Your task to perform on an android device: turn on translation in the chrome app Image 0: 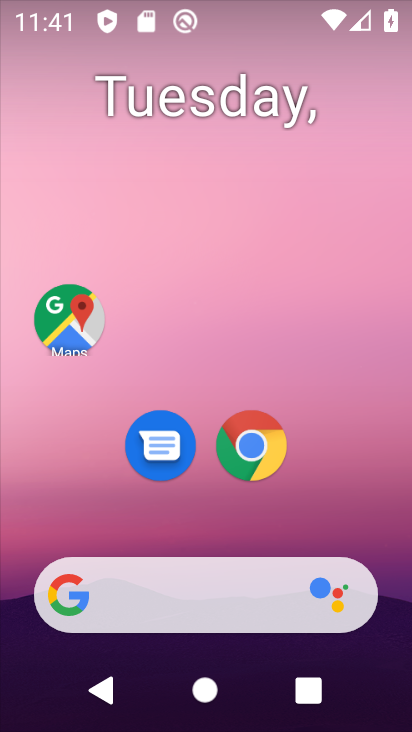
Step 0: drag from (313, 201) to (309, 19)
Your task to perform on an android device: turn on translation in the chrome app Image 1: 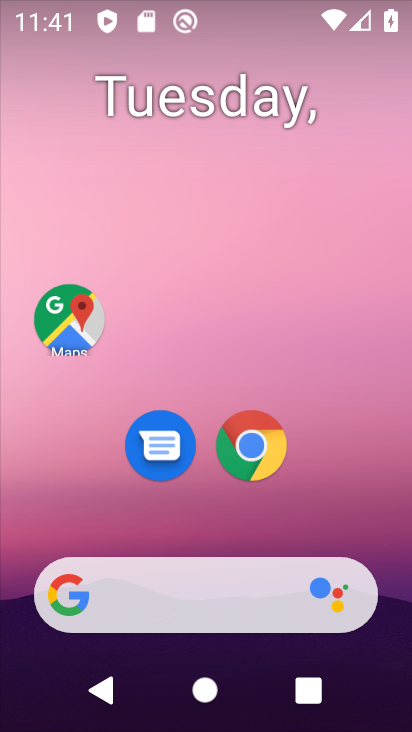
Step 1: drag from (329, 521) to (328, 73)
Your task to perform on an android device: turn on translation in the chrome app Image 2: 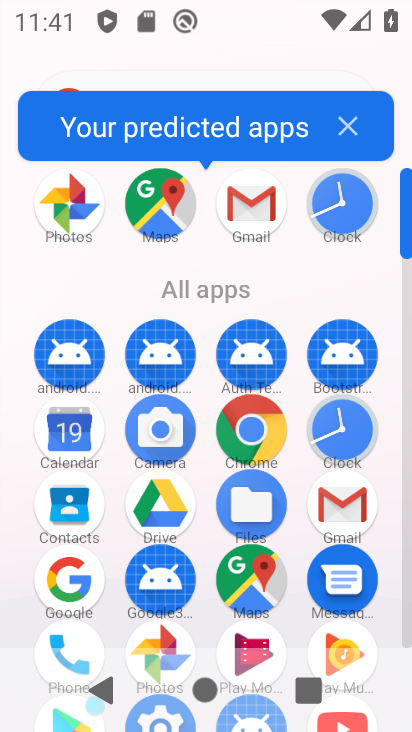
Step 2: click (242, 423)
Your task to perform on an android device: turn on translation in the chrome app Image 3: 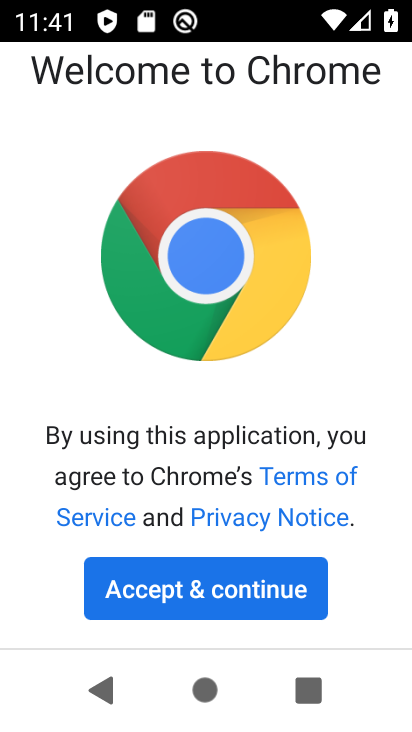
Step 3: click (244, 606)
Your task to perform on an android device: turn on translation in the chrome app Image 4: 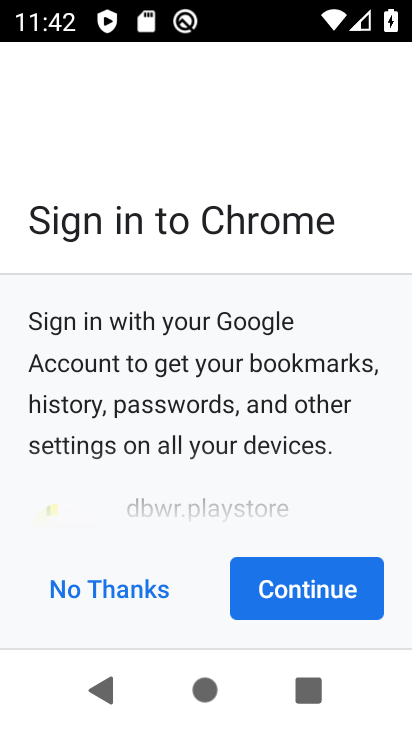
Step 4: click (274, 587)
Your task to perform on an android device: turn on translation in the chrome app Image 5: 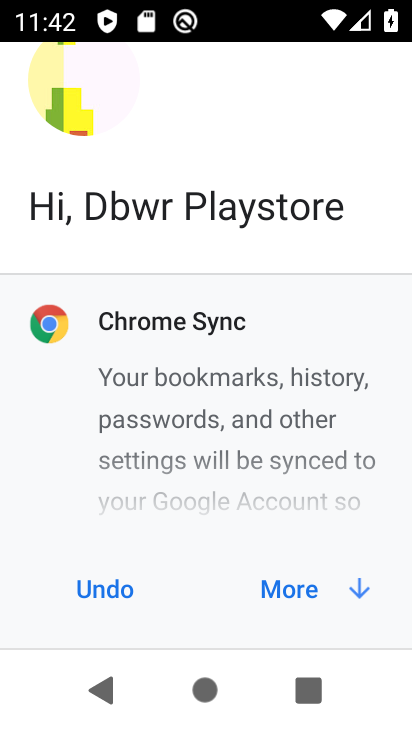
Step 5: click (312, 600)
Your task to perform on an android device: turn on translation in the chrome app Image 6: 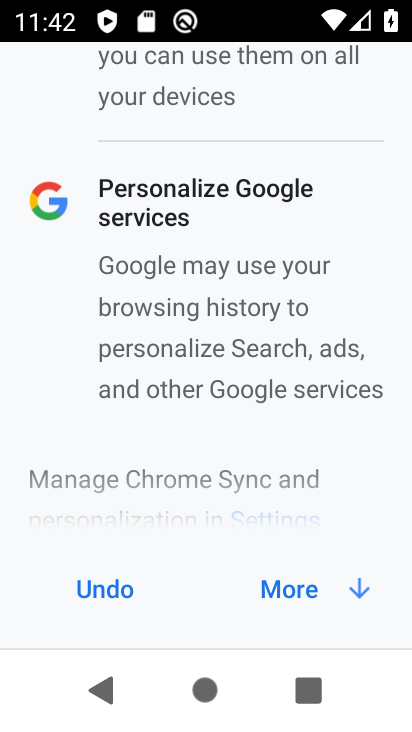
Step 6: click (312, 600)
Your task to perform on an android device: turn on translation in the chrome app Image 7: 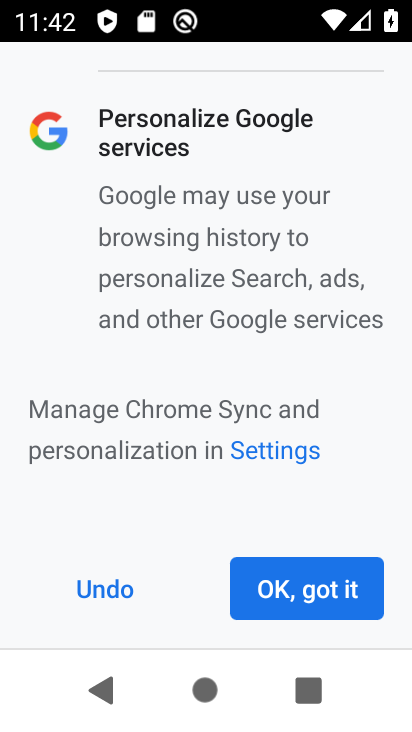
Step 7: click (312, 600)
Your task to perform on an android device: turn on translation in the chrome app Image 8: 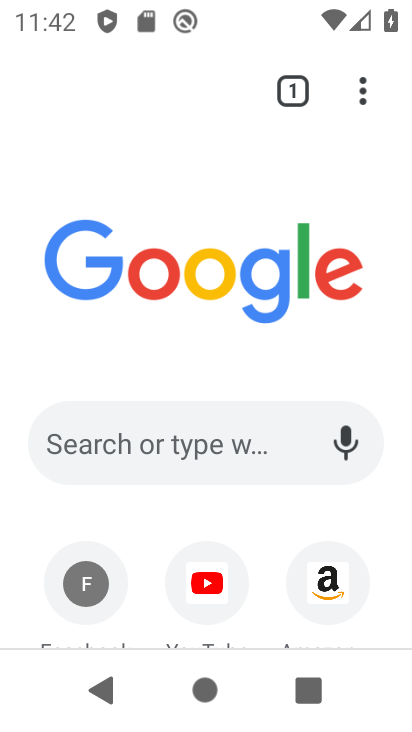
Step 8: click (370, 80)
Your task to perform on an android device: turn on translation in the chrome app Image 9: 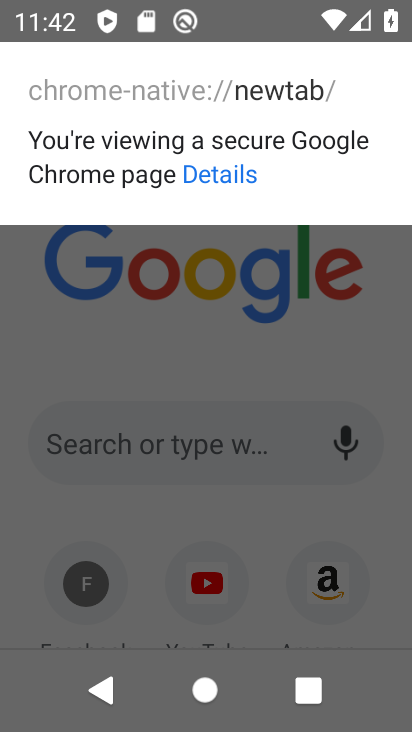
Step 9: click (324, 313)
Your task to perform on an android device: turn on translation in the chrome app Image 10: 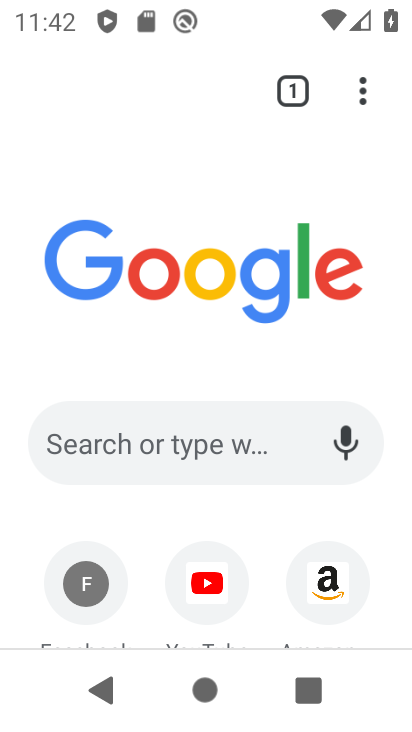
Step 10: click (361, 82)
Your task to perform on an android device: turn on translation in the chrome app Image 11: 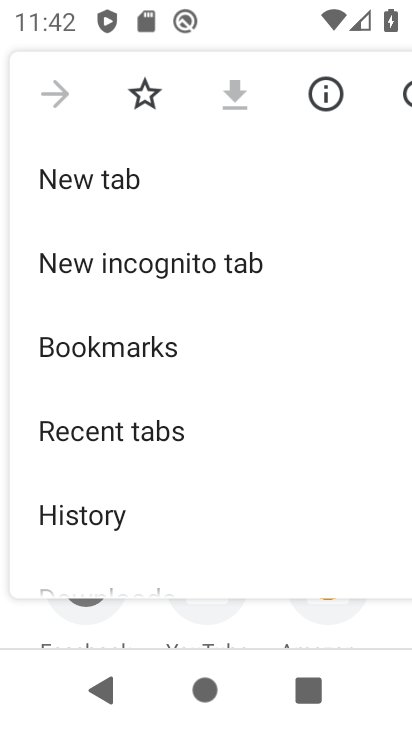
Step 11: drag from (156, 518) to (210, 0)
Your task to perform on an android device: turn on translation in the chrome app Image 12: 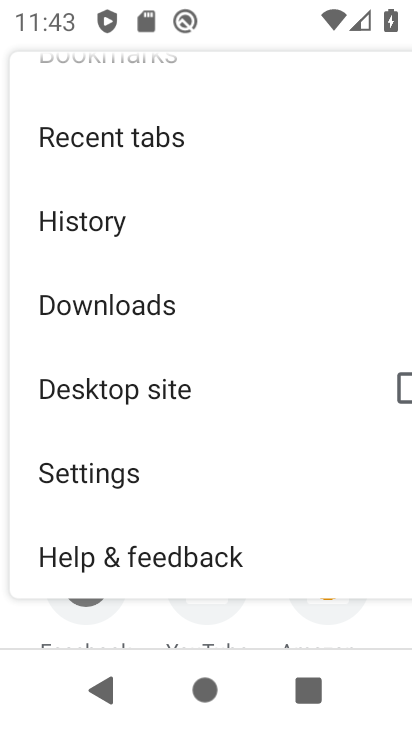
Step 12: click (121, 475)
Your task to perform on an android device: turn on translation in the chrome app Image 13: 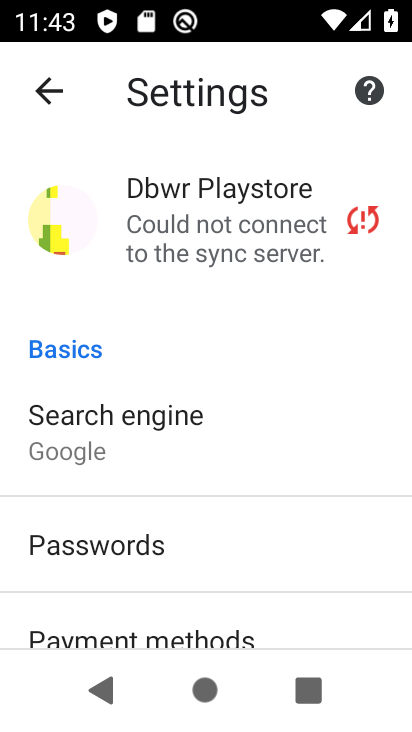
Step 13: drag from (289, 593) to (312, 269)
Your task to perform on an android device: turn on translation in the chrome app Image 14: 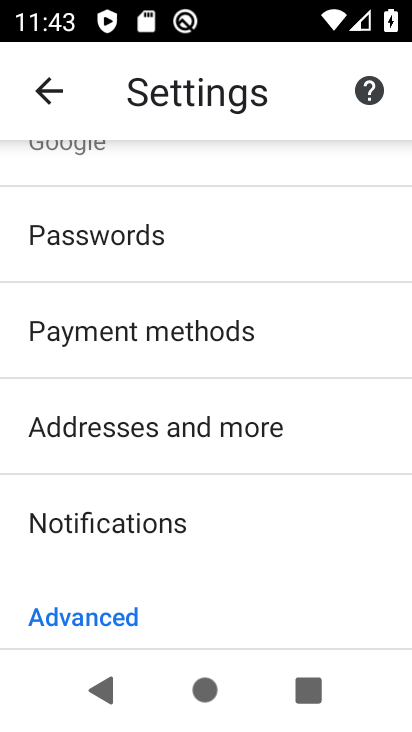
Step 14: drag from (231, 532) to (268, 204)
Your task to perform on an android device: turn on translation in the chrome app Image 15: 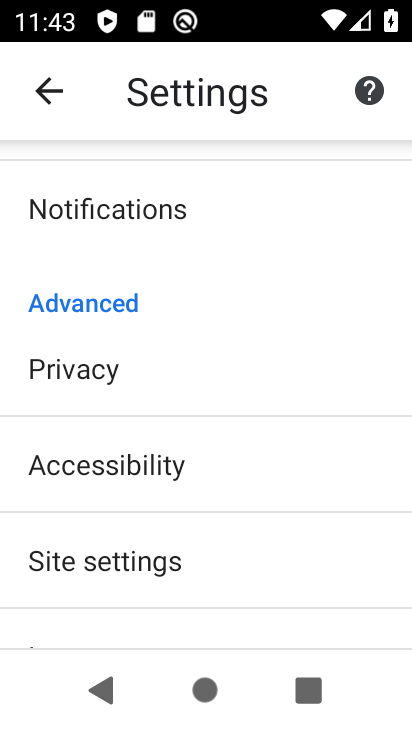
Step 15: drag from (202, 566) to (319, 289)
Your task to perform on an android device: turn on translation in the chrome app Image 16: 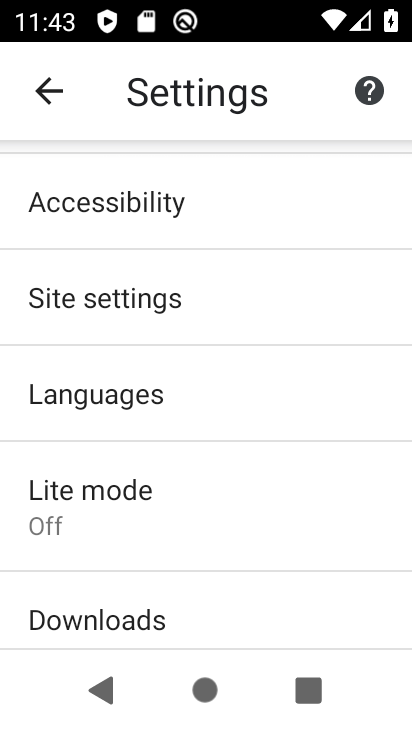
Step 16: click (144, 383)
Your task to perform on an android device: turn on translation in the chrome app Image 17: 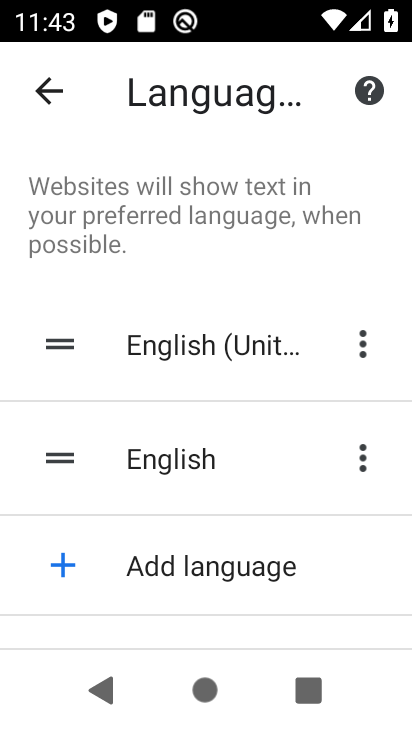
Step 17: task complete